Your task to perform on an android device: Go to Amazon Image 0: 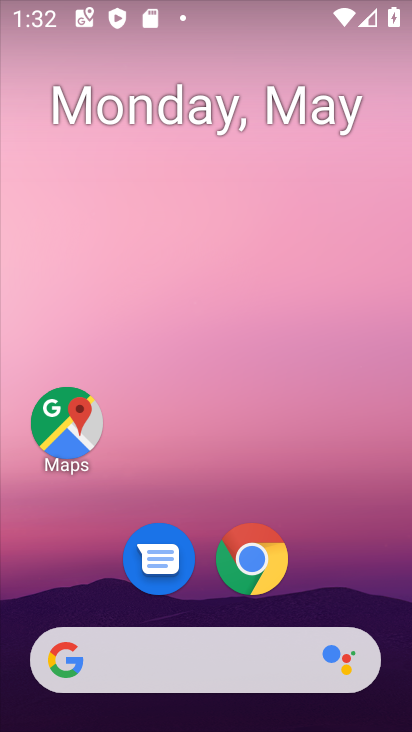
Step 0: click (233, 659)
Your task to perform on an android device: Go to Amazon Image 1: 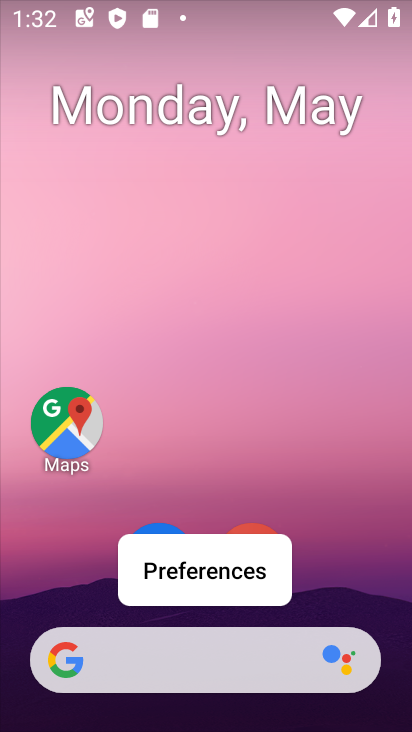
Step 1: click (263, 533)
Your task to perform on an android device: Go to Amazon Image 2: 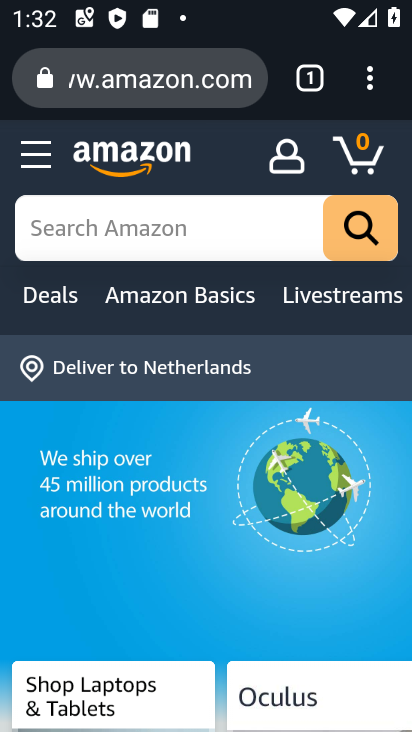
Step 2: task complete